Your task to perform on an android device: check storage Image 0: 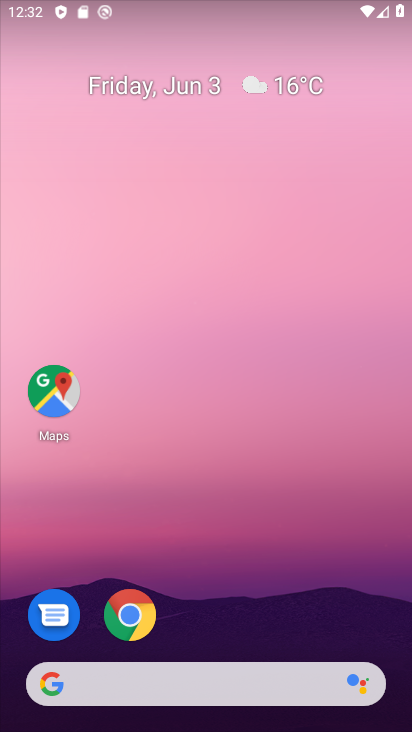
Step 0: drag from (240, 652) to (199, 284)
Your task to perform on an android device: check storage Image 1: 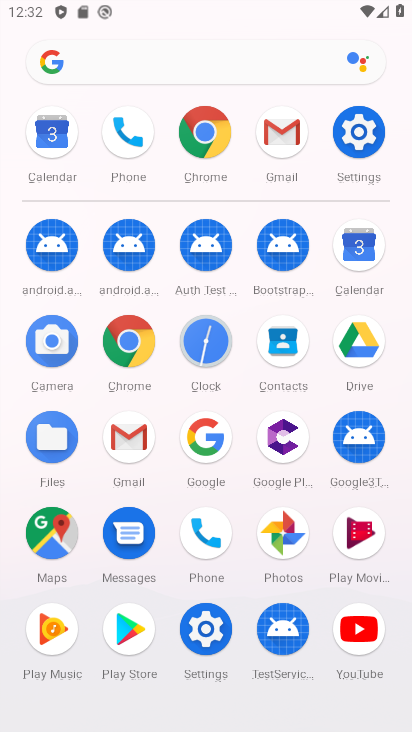
Step 1: click (353, 128)
Your task to perform on an android device: check storage Image 2: 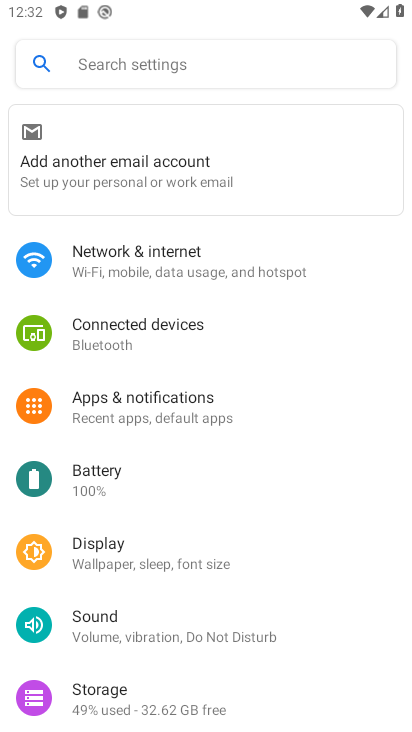
Step 2: drag from (166, 597) to (181, 297)
Your task to perform on an android device: check storage Image 3: 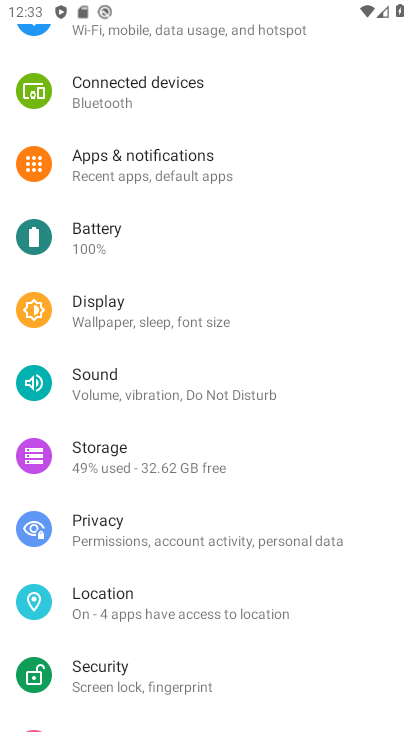
Step 3: click (102, 459)
Your task to perform on an android device: check storage Image 4: 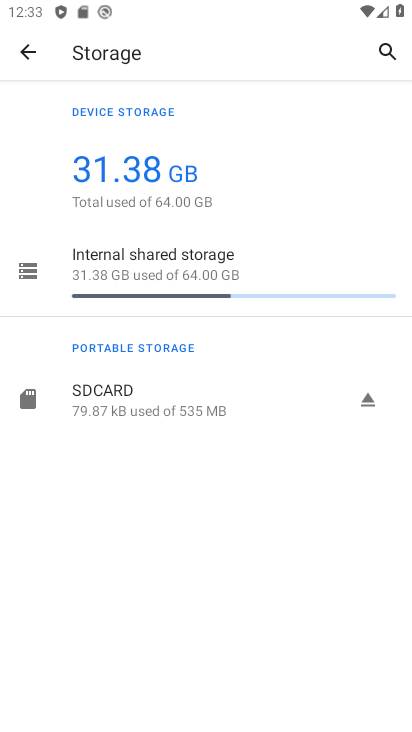
Step 4: task complete